Your task to perform on an android device: Go to Wikipedia Image 0: 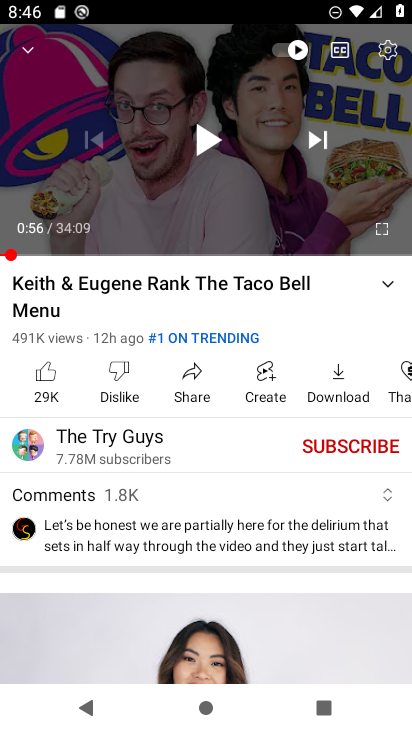
Step 0: press home button
Your task to perform on an android device: Go to Wikipedia Image 1: 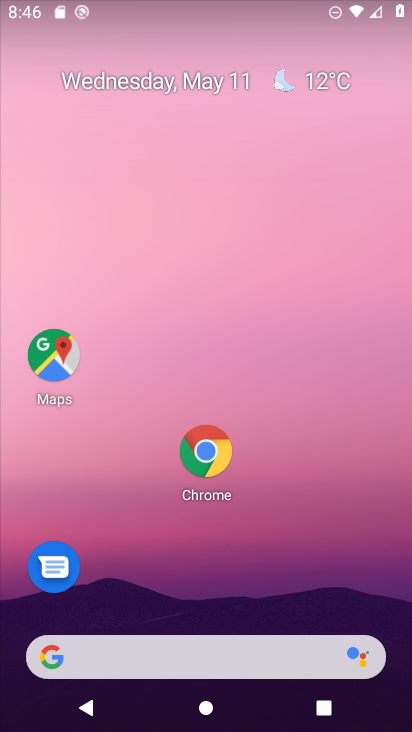
Step 1: click (195, 450)
Your task to perform on an android device: Go to Wikipedia Image 2: 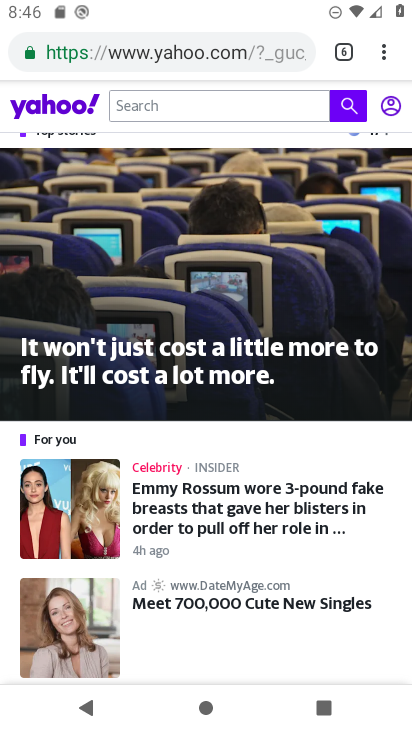
Step 2: drag from (382, 55) to (305, 105)
Your task to perform on an android device: Go to Wikipedia Image 3: 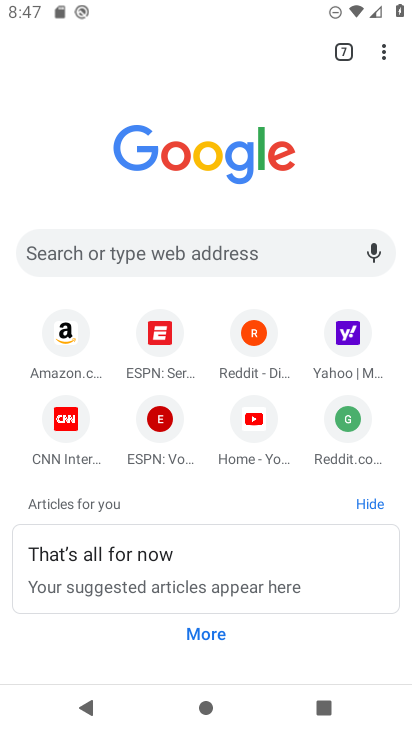
Step 3: click (115, 249)
Your task to perform on an android device: Go to Wikipedia Image 4: 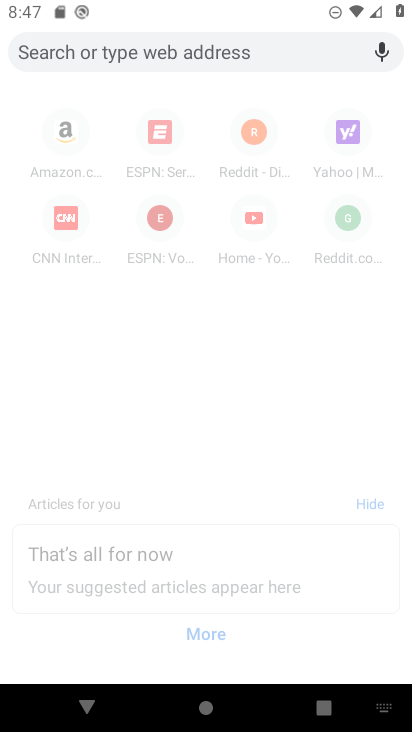
Step 4: type "wikipedia"
Your task to perform on an android device: Go to Wikipedia Image 5: 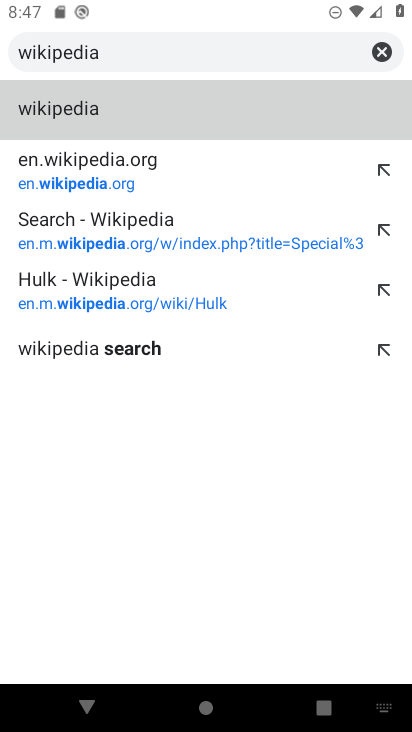
Step 5: click (104, 111)
Your task to perform on an android device: Go to Wikipedia Image 6: 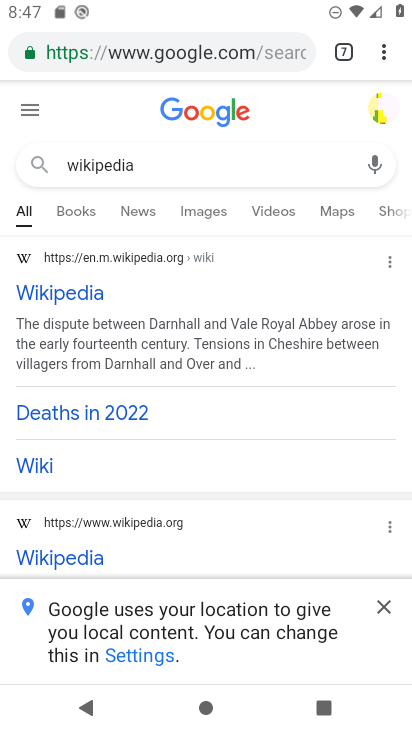
Step 6: click (47, 295)
Your task to perform on an android device: Go to Wikipedia Image 7: 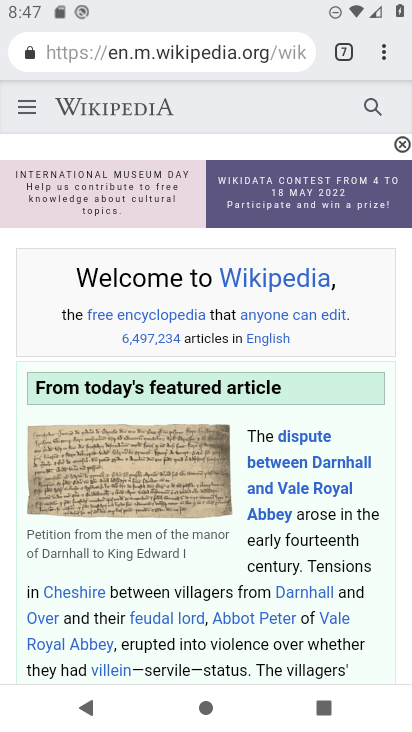
Step 7: task complete